Your task to perform on an android device: Open calendar and show me the third week of next month Image 0: 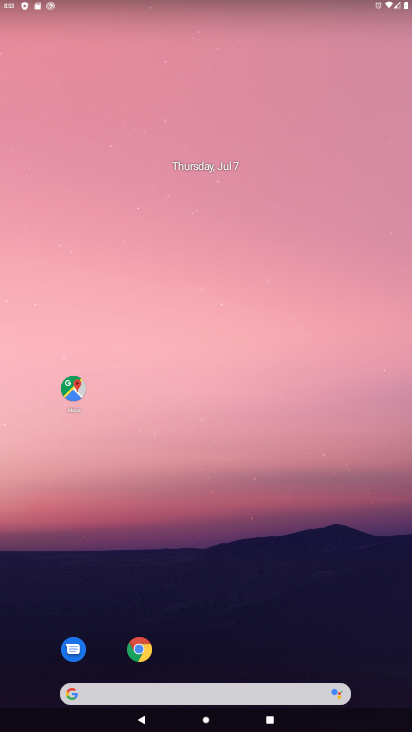
Step 0: drag from (227, 684) to (212, 3)
Your task to perform on an android device: Open calendar and show me the third week of next month Image 1: 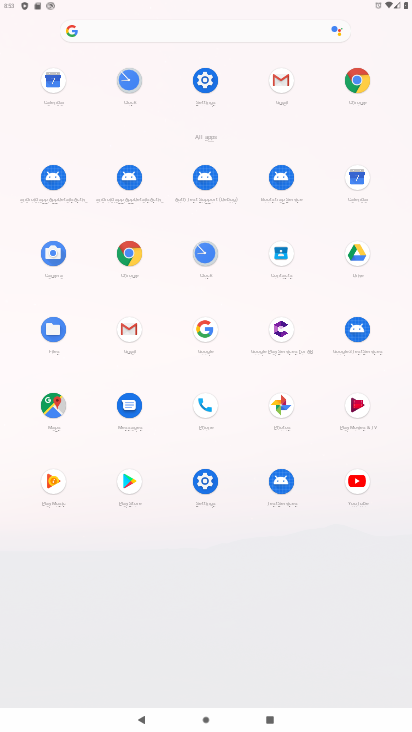
Step 1: click (363, 176)
Your task to perform on an android device: Open calendar and show me the third week of next month Image 2: 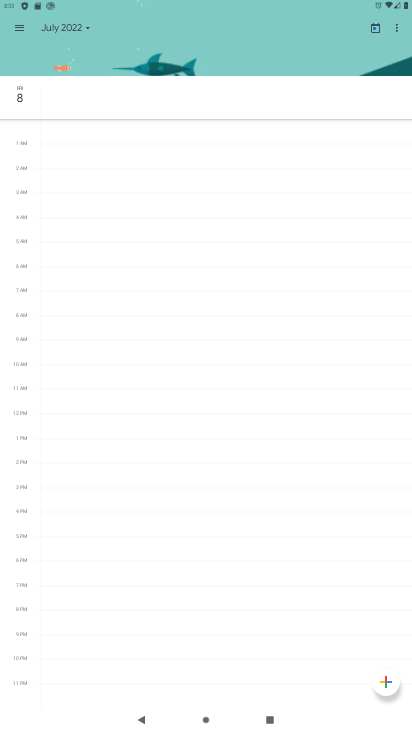
Step 2: click (76, 32)
Your task to perform on an android device: Open calendar and show me the third week of next month Image 3: 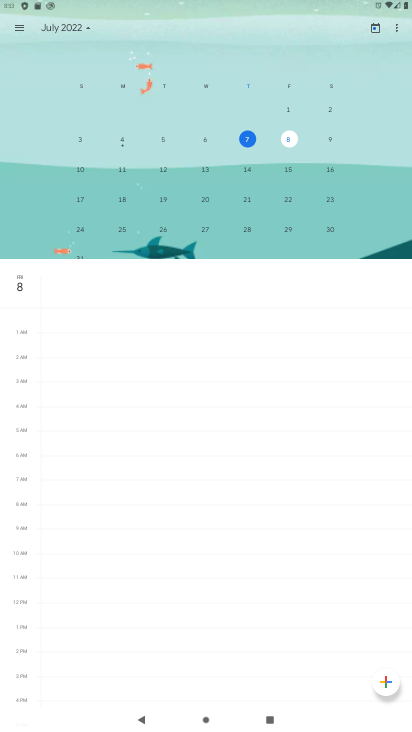
Step 3: drag from (321, 185) to (41, 186)
Your task to perform on an android device: Open calendar and show me the third week of next month Image 4: 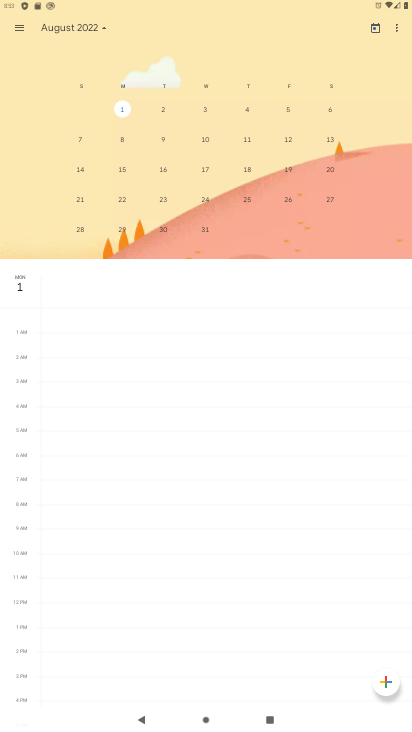
Step 4: click (201, 167)
Your task to perform on an android device: Open calendar and show me the third week of next month Image 5: 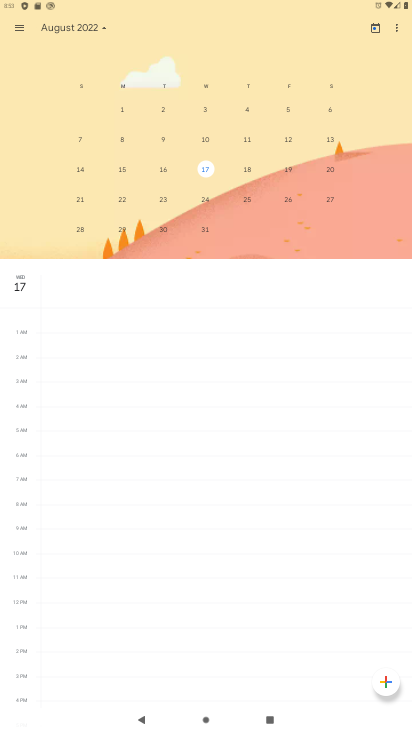
Step 5: click (18, 22)
Your task to perform on an android device: Open calendar and show me the third week of next month Image 6: 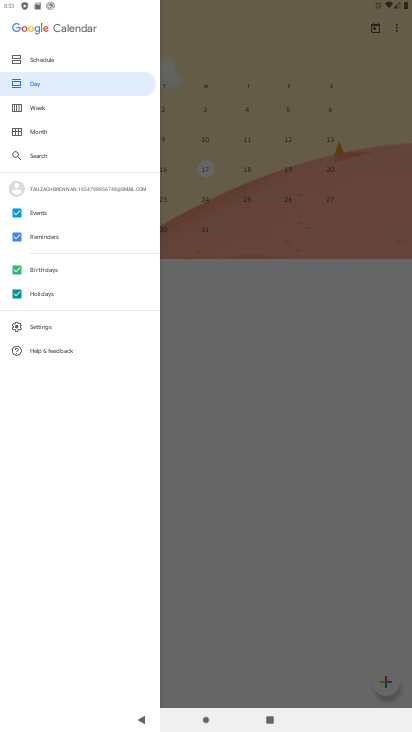
Step 6: click (50, 108)
Your task to perform on an android device: Open calendar and show me the third week of next month Image 7: 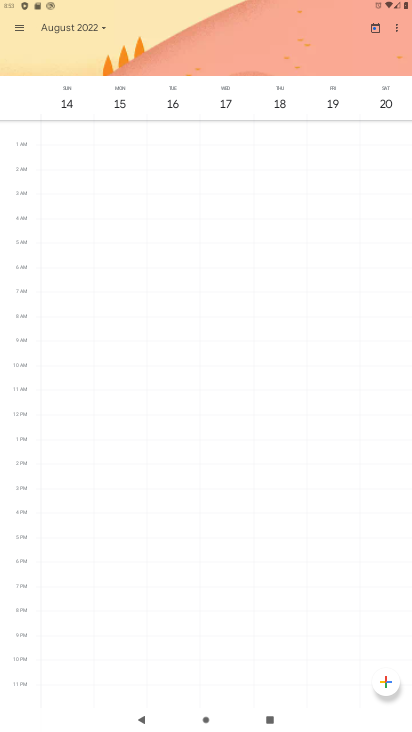
Step 7: task complete